Your task to perform on an android device: change the clock display to analog Image 0: 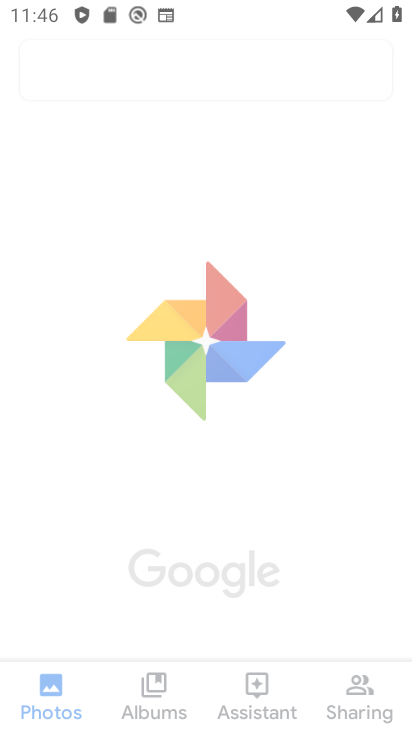
Step 0: click (76, 438)
Your task to perform on an android device: change the clock display to analog Image 1: 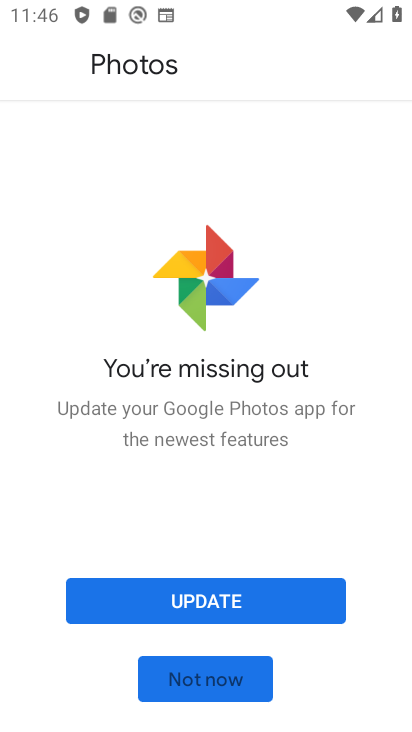
Step 1: press home button
Your task to perform on an android device: change the clock display to analog Image 2: 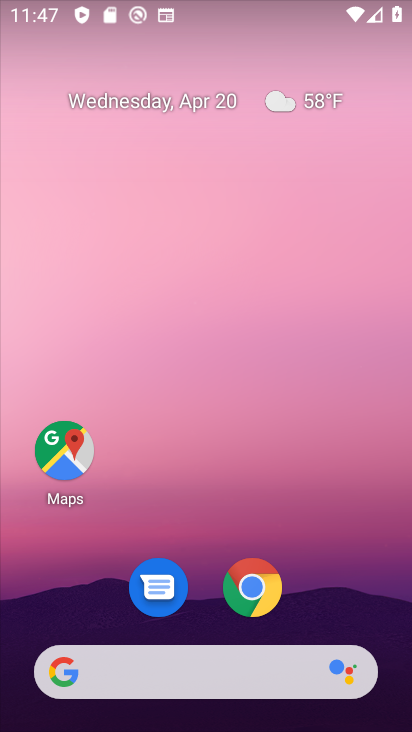
Step 2: drag from (204, 537) to (178, 101)
Your task to perform on an android device: change the clock display to analog Image 3: 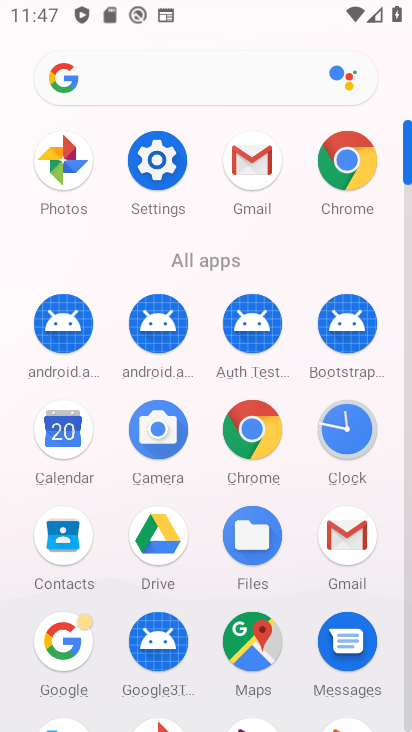
Step 3: click (348, 423)
Your task to perform on an android device: change the clock display to analog Image 4: 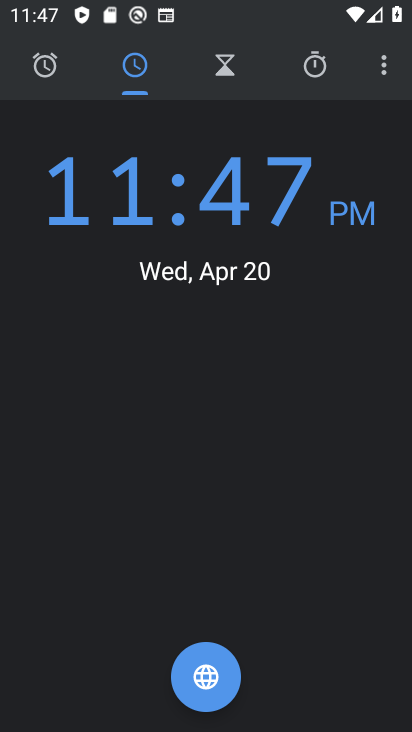
Step 4: click (387, 82)
Your task to perform on an android device: change the clock display to analog Image 5: 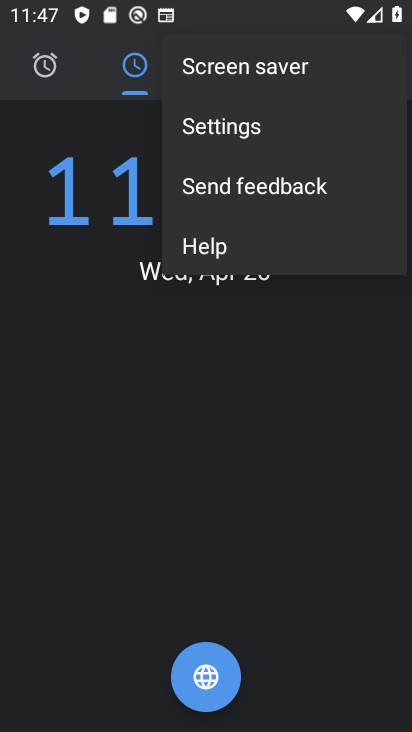
Step 5: click (187, 144)
Your task to perform on an android device: change the clock display to analog Image 6: 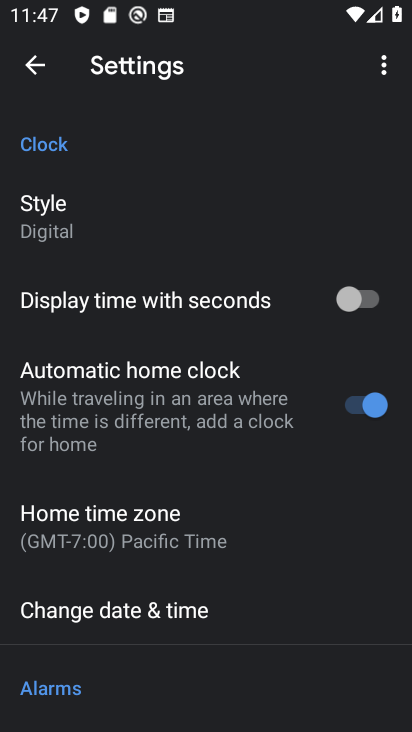
Step 6: click (84, 234)
Your task to perform on an android device: change the clock display to analog Image 7: 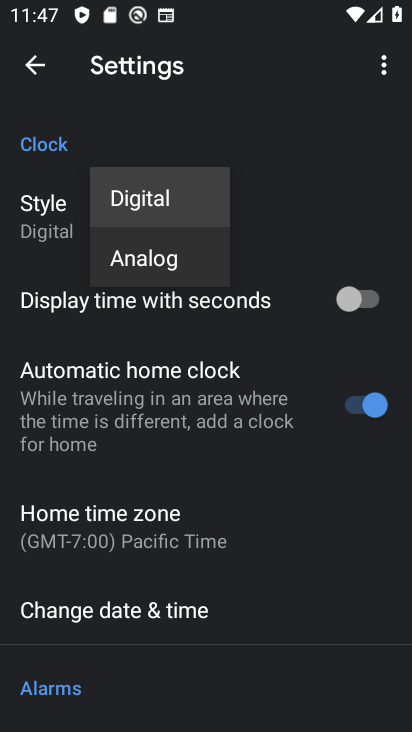
Step 7: click (85, 258)
Your task to perform on an android device: change the clock display to analog Image 8: 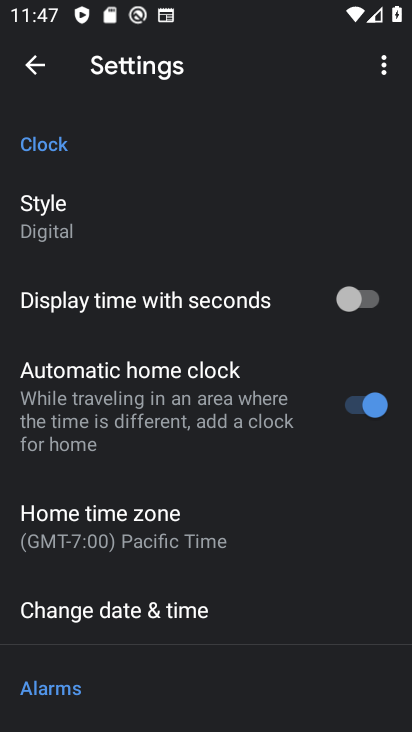
Step 8: click (80, 238)
Your task to perform on an android device: change the clock display to analog Image 9: 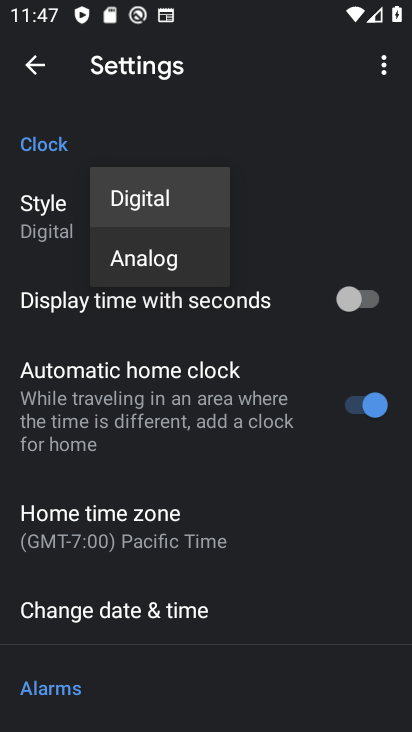
Step 9: click (175, 248)
Your task to perform on an android device: change the clock display to analog Image 10: 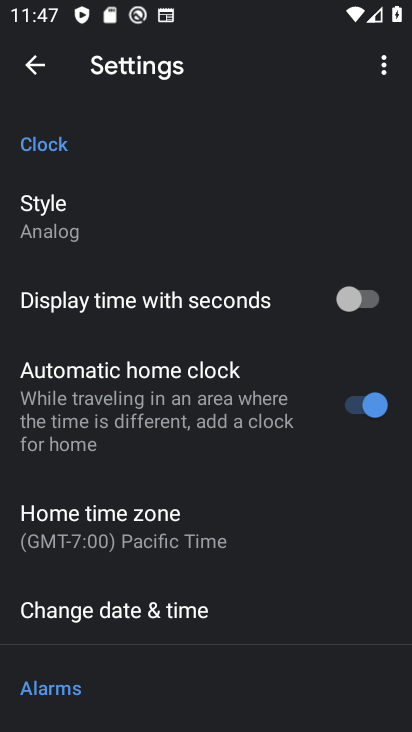
Step 10: task complete